Your task to perform on an android device: open a bookmark in the chrome app Image 0: 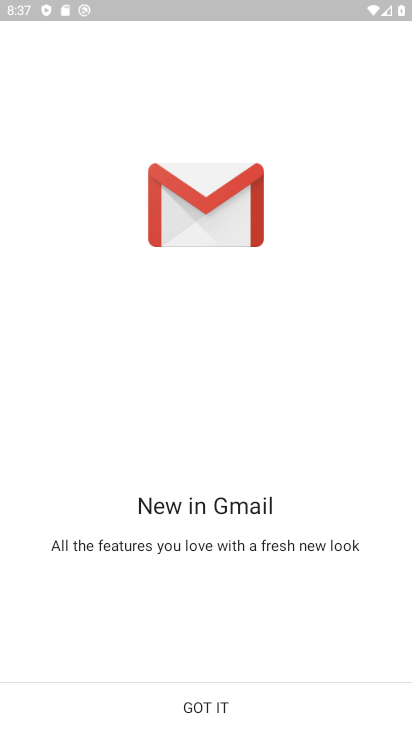
Step 0: press home button
Your task to perform on an android device: open a bookmark in the chrome app Image 1: 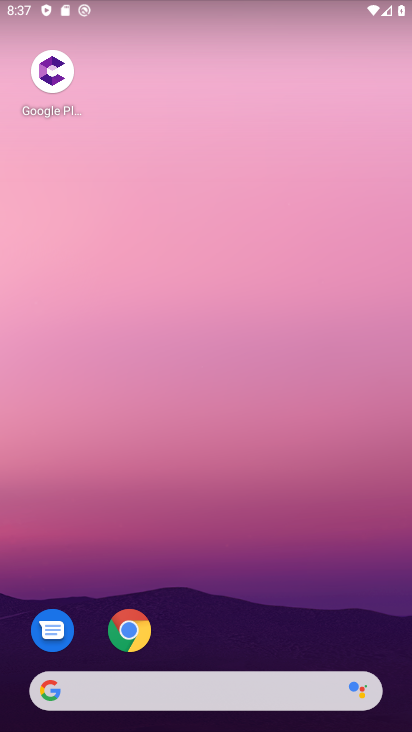
Step 1: drag from (352, 607) to (352, 216)
Your task to perform on an android device: open a bookmark in the chrome app Image 2: 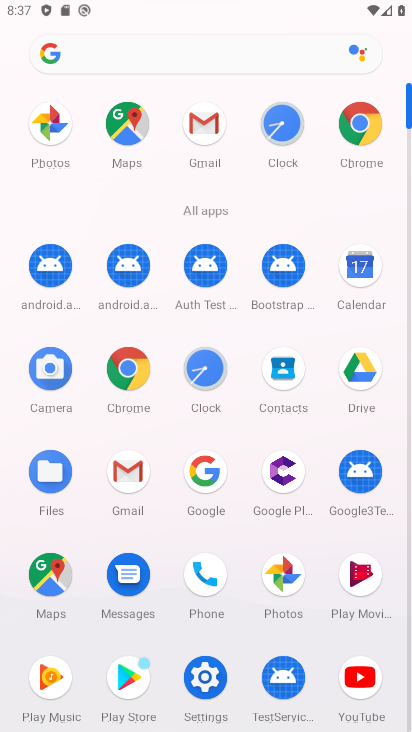
Step 2: click (370, 137)
Your task to perform on an android device: open a bookmark in the chrome app Image 3: 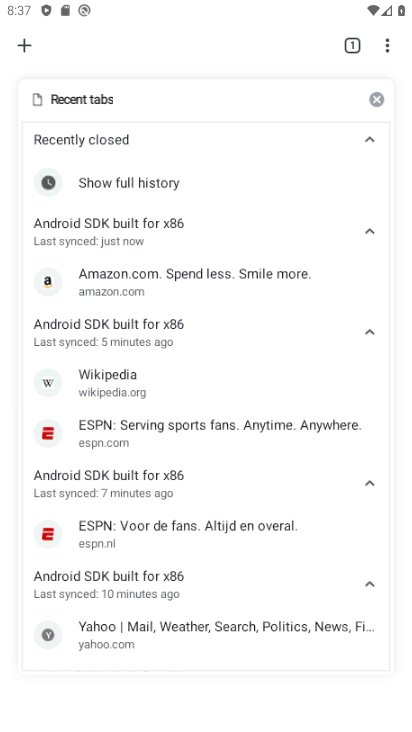
Step 3: click (384, 50)
Your task to perform on an android device: open a bookmark in the chrome app Image 4: 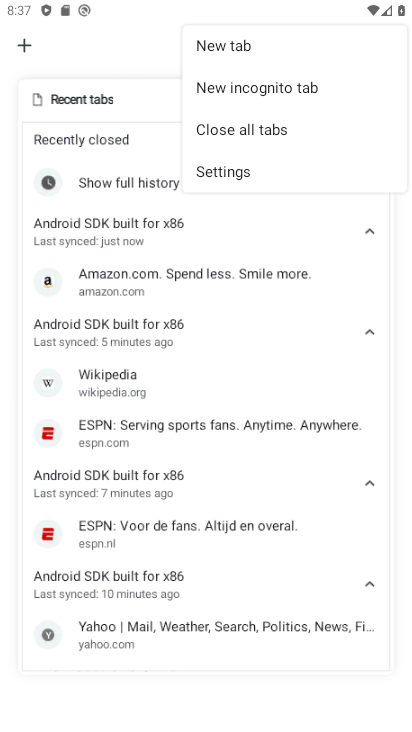
Step 4: press back button
Your task to perform on an android device: open a bookmark in the chrome app Image 5: 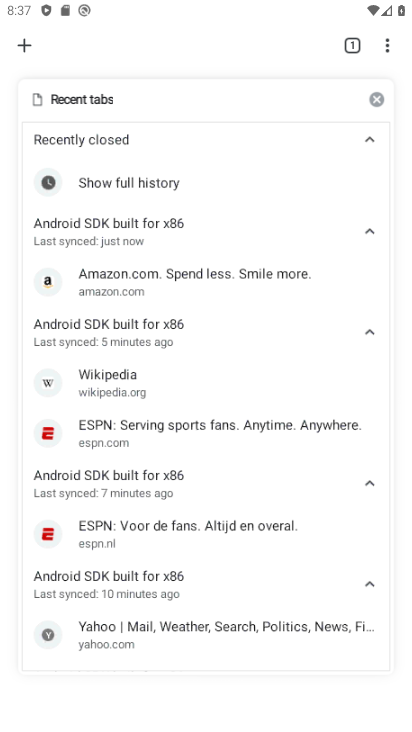
Step 5: press back button
Your task to perform on an android device: open a bookmark in the chrome app Image 6: 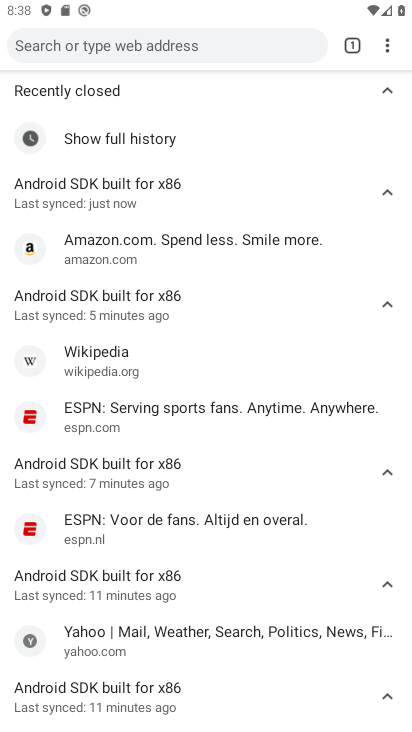
Step 6: click (384, 50)
Your task to perform on an android device: open a bookmark in the chrome app Image 7: 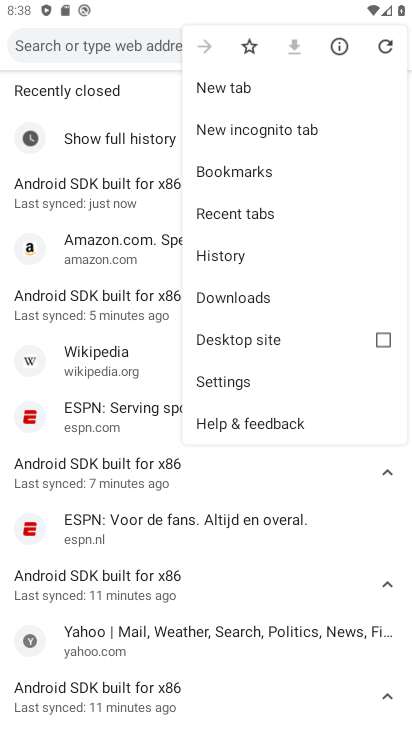
Step 7: click (275, 173)
Your task to perform on an android device: open a bookmark in the chrome app Image 8: 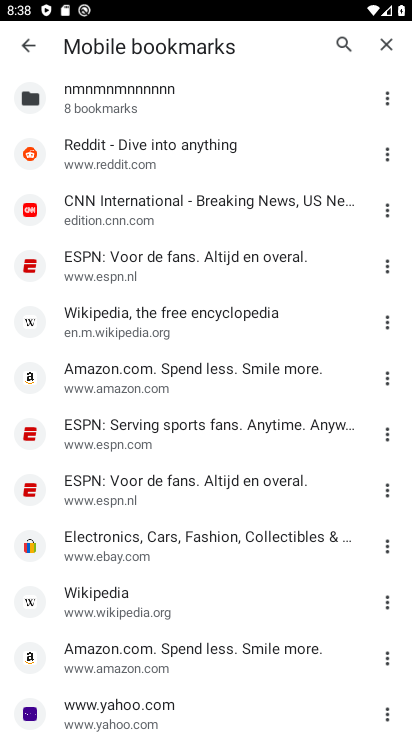
Step 8: click (194, 366)
Your task to perform on an android device: open a bookmark in the chrome app Image 9: 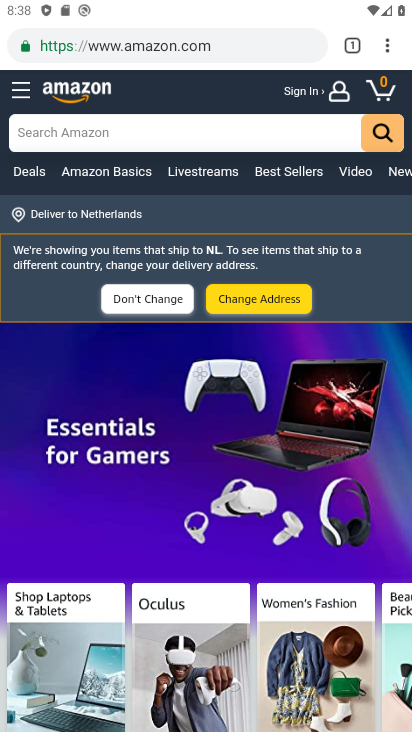
Step 9: task complete